Your task to perform on an android device: Go to wifi settings Image 0: 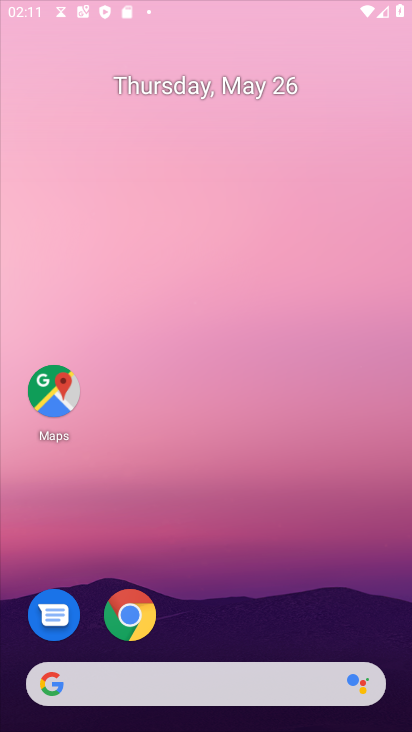
Step 0: press home button
Your task to perform on an android device: Go to wifi settings Image 1: 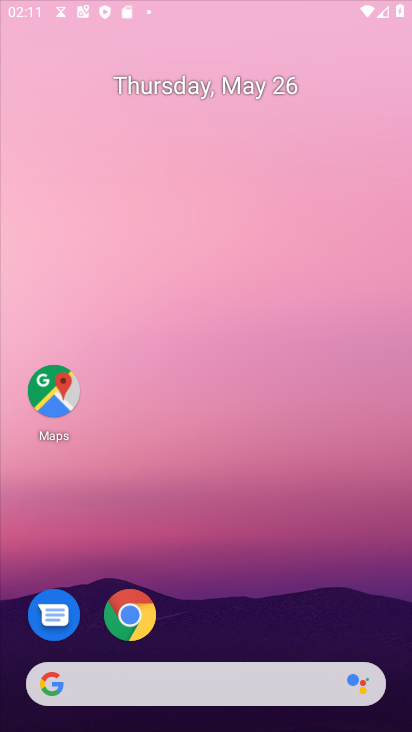
Step 1: click (129, 610)
Your task to perform on an android device: Go to wifi settings Image 2: 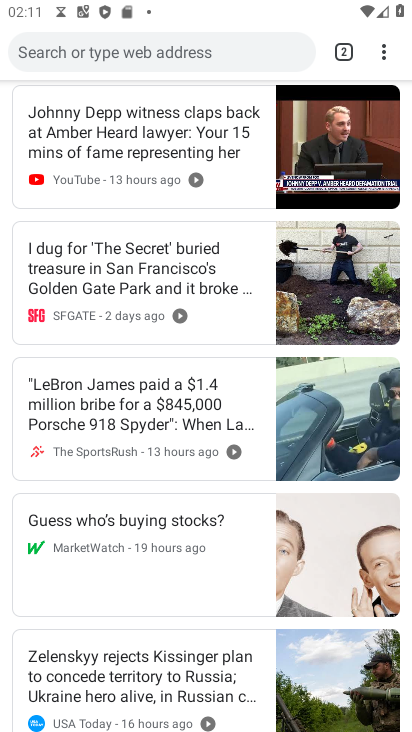
Step 2: press home button
Your task to perform on an android device: Go to wifi settings Image 3: 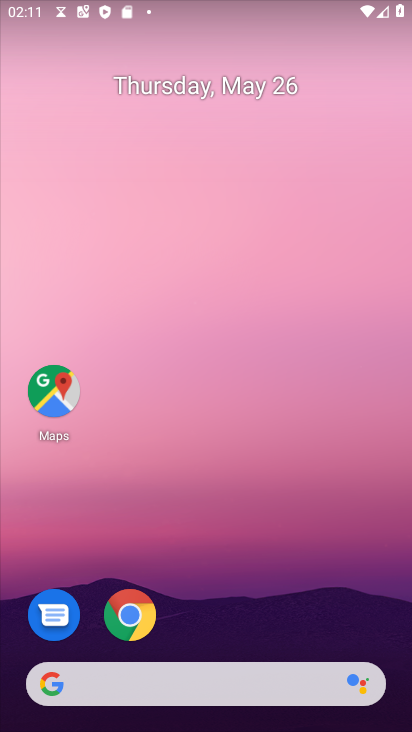
Step 3: drag from (216, 626) to (237, 79)
Your task to perform on an android device: Go to wifi settings Image 4: 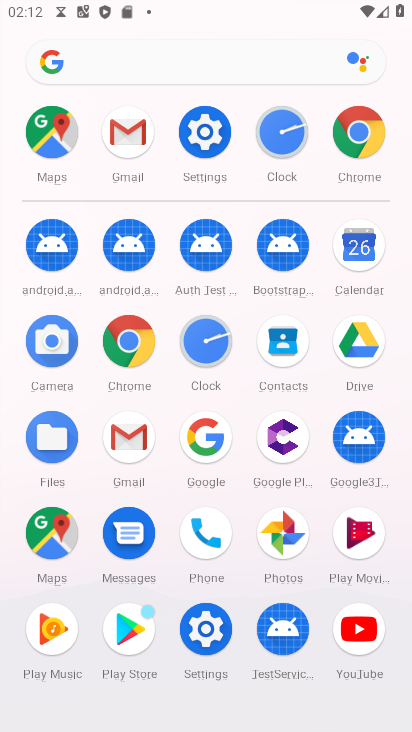
Step 4: click (205, 124)
Your task to perform on an android device: Go to wifi settings Image 5: 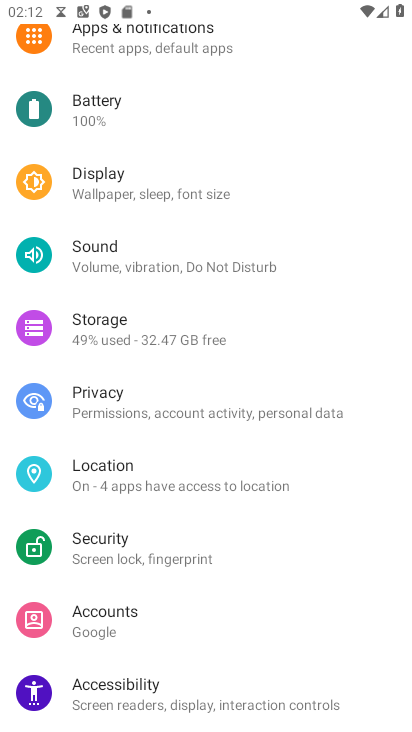
Step 5: drag from (159, 108) to (151, 616)
Your task to perform on an android device: Go to wifi settings Image 6: 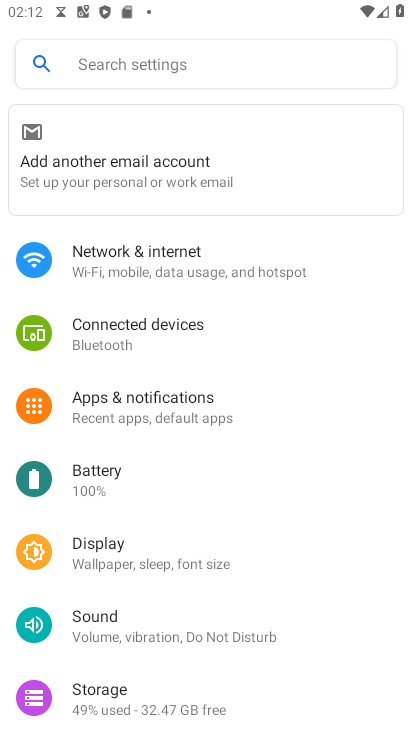
Step 6: click (202, 247)
Your task to perform on an android device: Go to wifi settings Image 7: 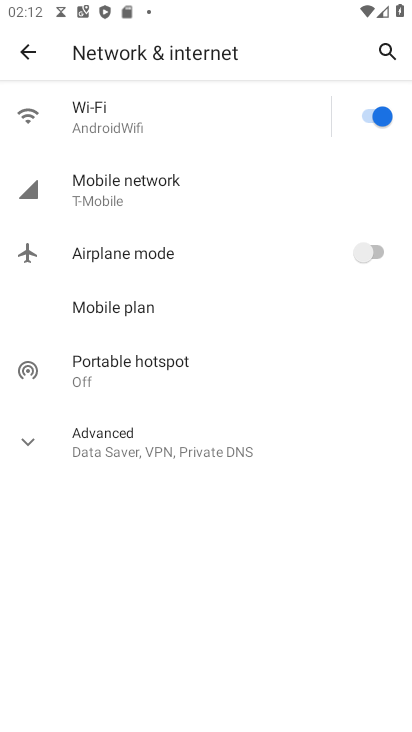
Step 7: click (173, 107)
Your task to perform on an android device: Go to wifi settings Image 8: 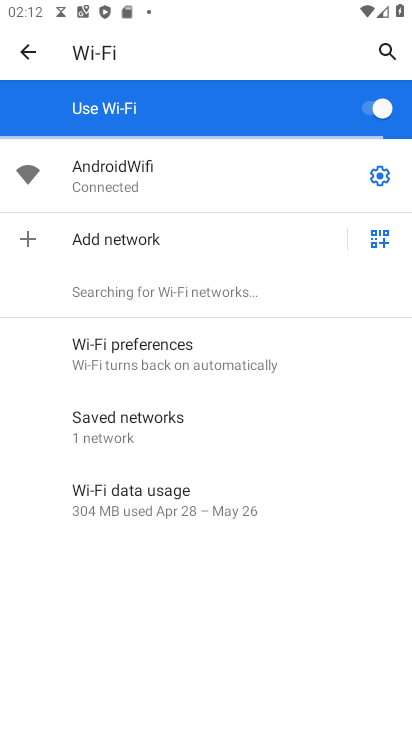
Step 8: task complete